Your task to perform on an android device: see creations saved in the google photos Image 0: 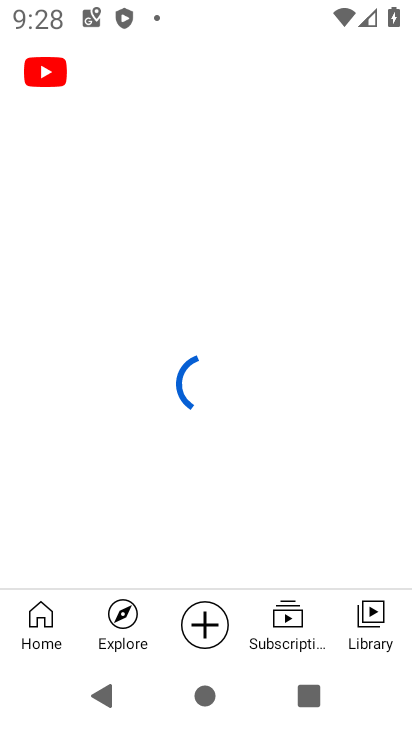
Step 0: press home button
Your task to perform on an android device: see creations saved in the google photos Image 1: 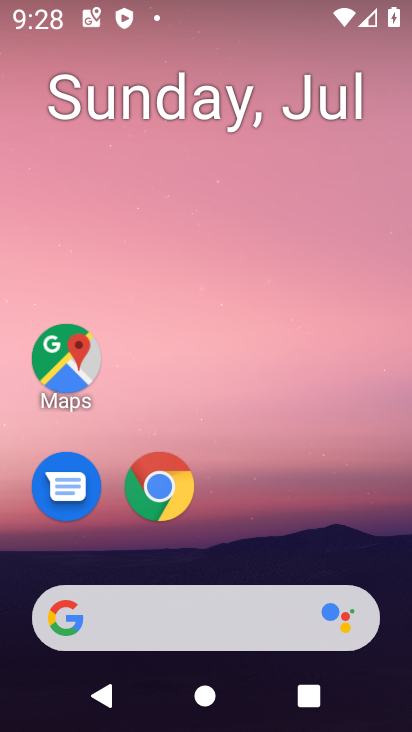
Step 1: press home button
Your task to perform on an android device: see creations saved in the google photos Image 2: 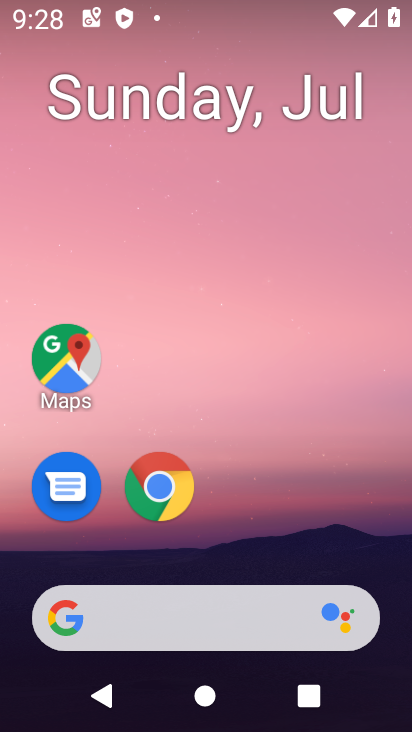
Step 2: drag from (346, 528) to (324, 71)
Your task to perform on an android device: see creations saved in the google photos Image 3: 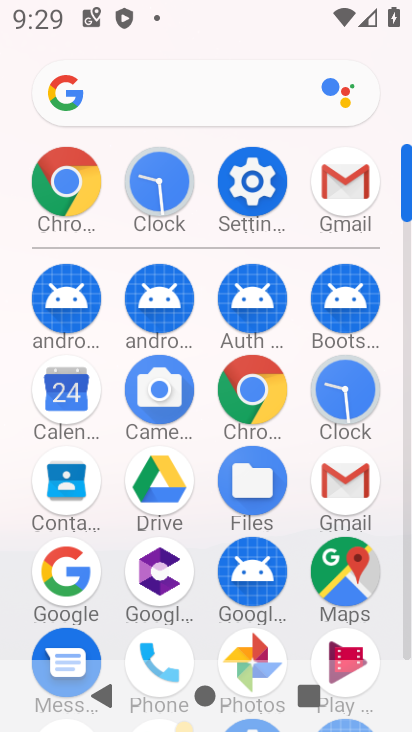
Step 3: drag from (396, 449) to (382, 243)
Your task to perform on an android device: see creations saved in the google photos Image 4: 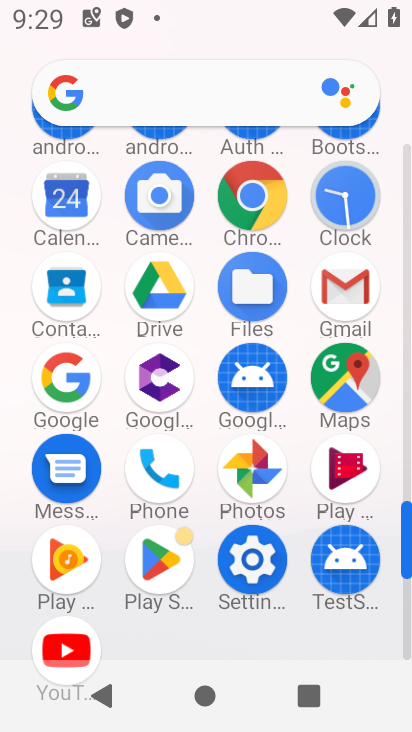
Step 4: click (251, 474)
Your task to perform on an android device: see creations saved in the google photos Image 5: 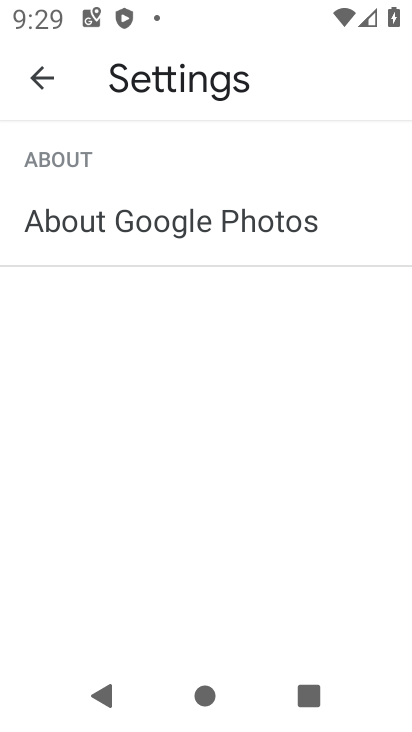
Step 5: press back button
Your task to perform on an android device: see creations saved in the google photos Image 6: 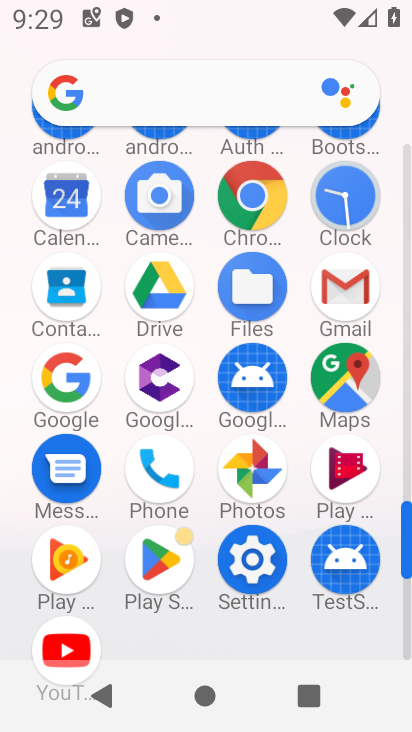
Step 6: click (267, 459)
Your task to perform on an android device: see creations saved in the google photos Image 7: 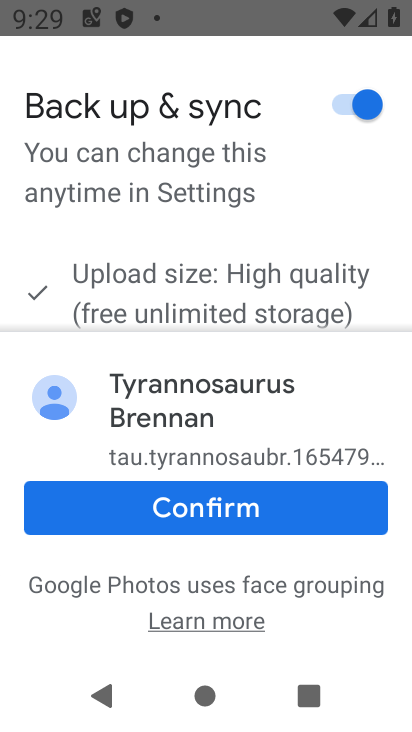
Step 7: click (332, 506)
Your task to perform on an android device: see creations saved in the google photos Image 8: 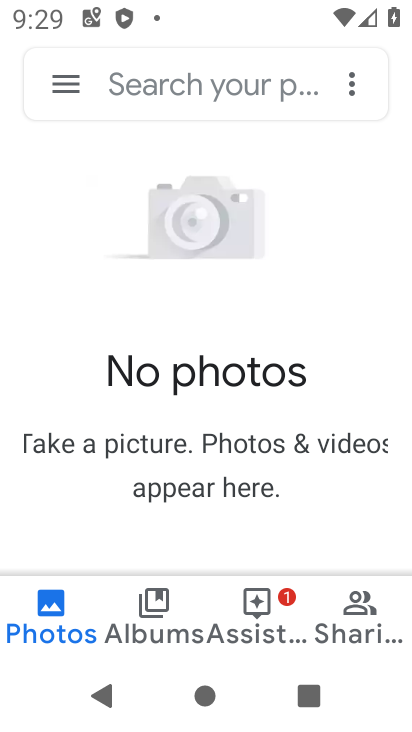
Step 8: click (215, 100)
Your task to perform on an android device: see creations saved in the google photos Image 9: 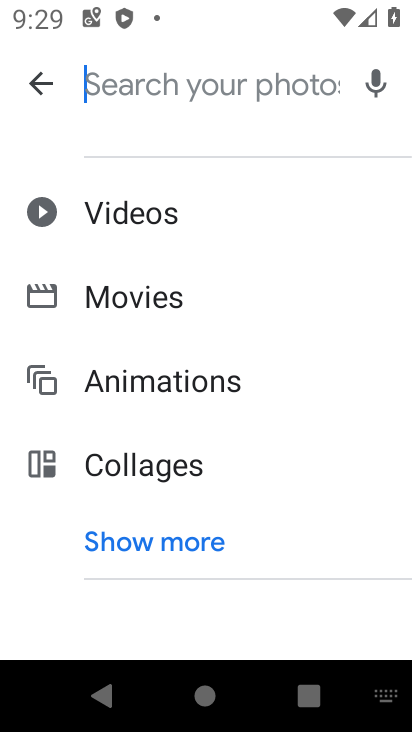
Step 9: click (209, 534)
Your task to perform on an android device: see creations saved in the google photos Image 10: 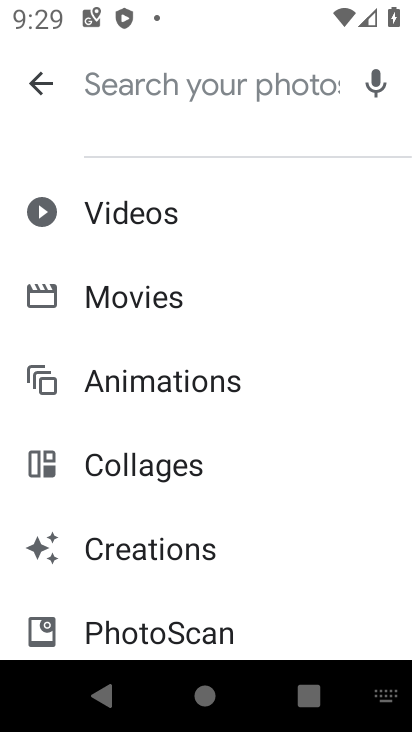
Step 10: click (186, 551)
Your task to perform on an android device: see creations saved in the google photos Image 11: 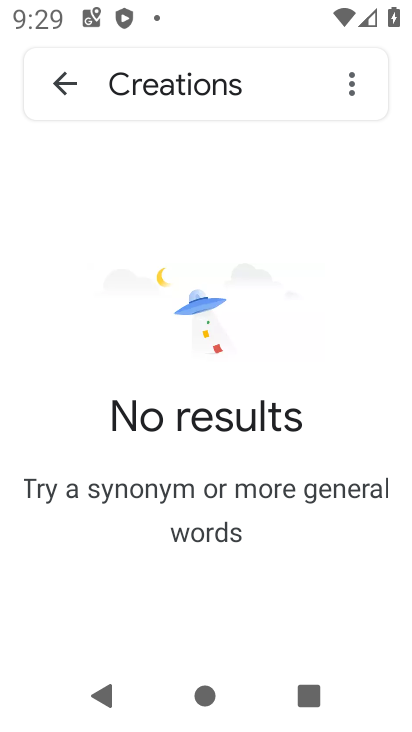
Step 11: task complete